Your task to perform on an android device: Search for vegetarian restaurants on Maps Image 0: 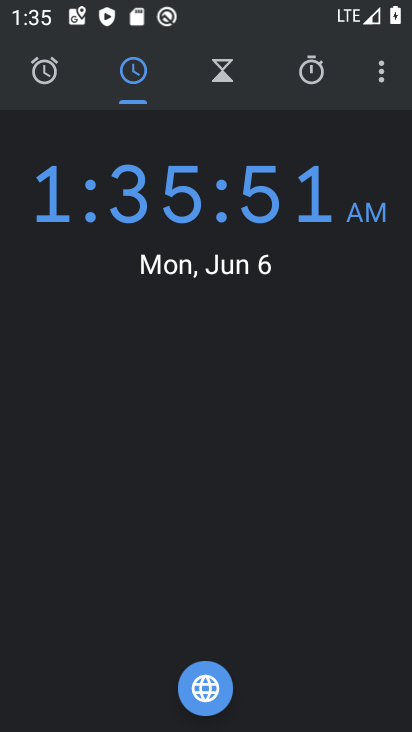
Step 0: press home button
Your task to perform on an android device: Search for vegetarian restaurants on Maps Image 1: 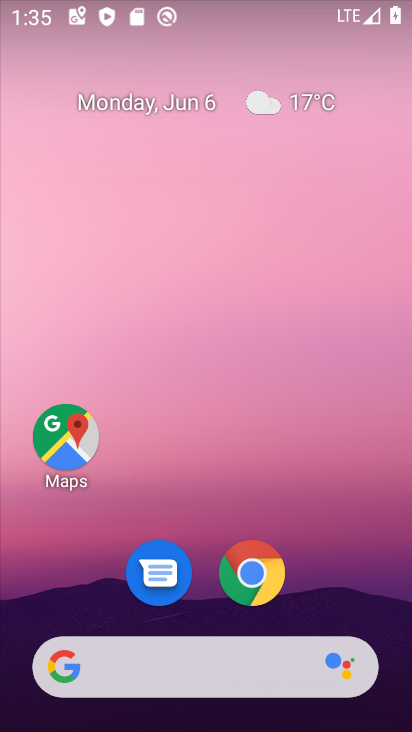
Step 1: drag from (360, 570) to (362, 163)
Your task to perform on an android device: Search for vegetarian restaurants on Maps Image 2: 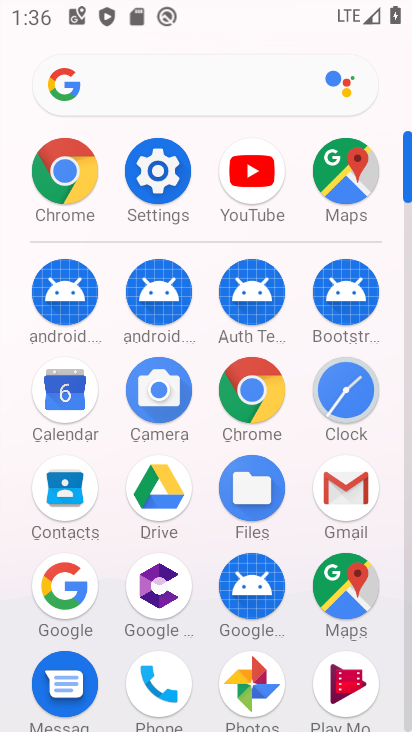
Step 2: click (354, 182)
Your task to perform on an android device: Search for vegetarian restaurants on Maps Image 3: 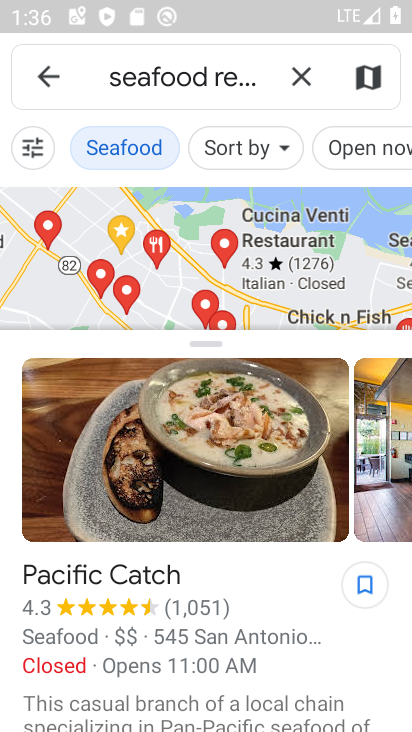
Step 3: click (308, 79)
Your task to perform on an android device: Search for vegetarian restaurants on Maps Image 4: 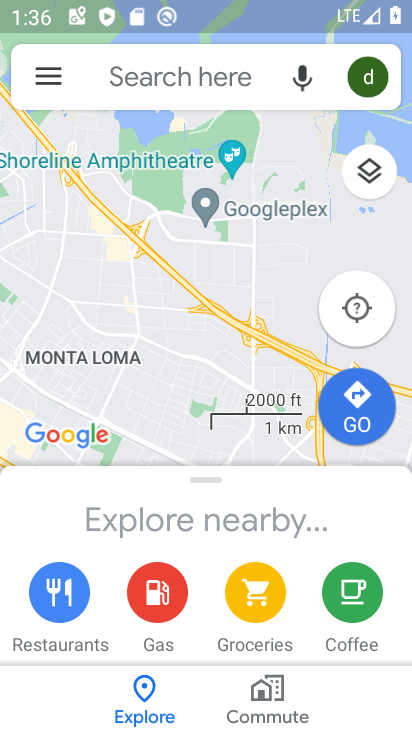
Step 4: click (242, 80)
Your task to perform on an android device: Search for vegetarian restaurants on Maps Image 5: 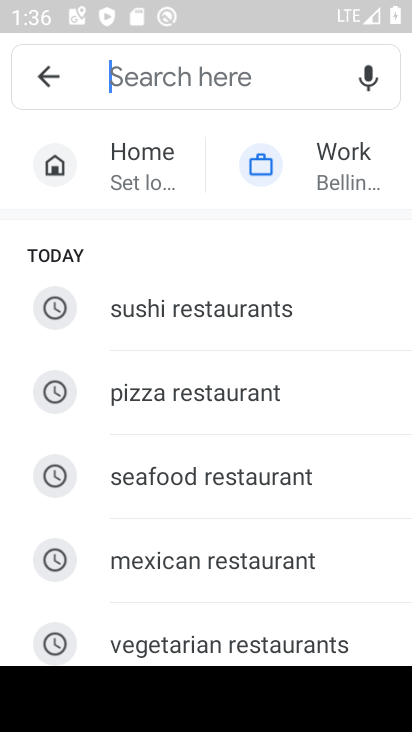
Step 5: type "vegetrain restaurants"
Your task to perform on an android device: Search for vegetarian restaurants on Maps Image 6: 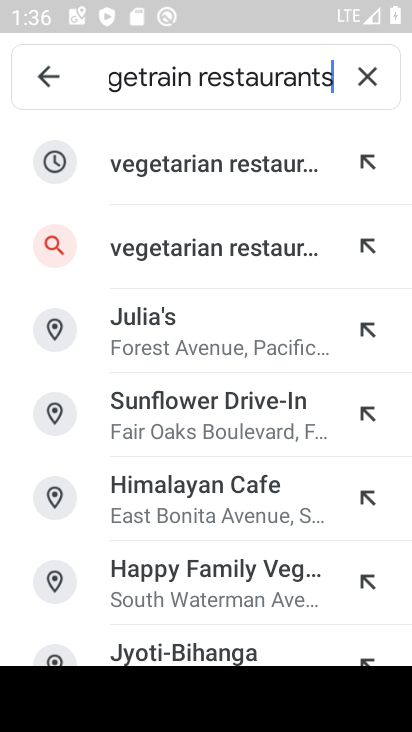
Step 6: click (235, 83)
Your task to perform on an android device: Search for vegetarian restaurants on Maps Image 7: 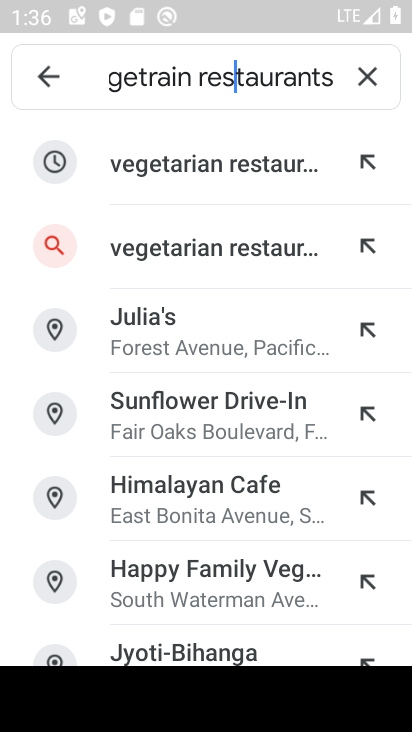
Step 7: click (229, 176)
Your task to perform on an android device: Search for vegetarian restaurants on Maps Image 8: 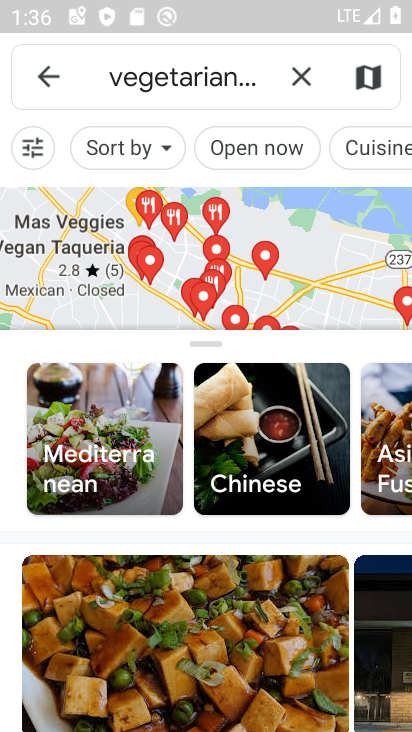
Step 8: task complete